Your task to perform on an android device: Open internet settings Image 0: 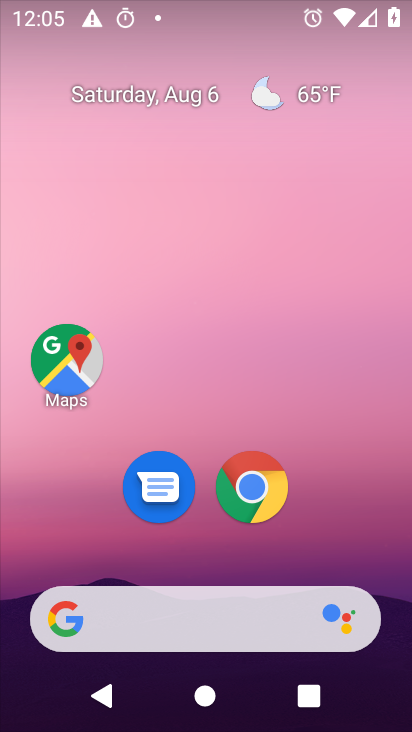
Step 0: drag from (206, 485) to (291, 7)
Your task to perform on an android device: Open internet settings Image 1: 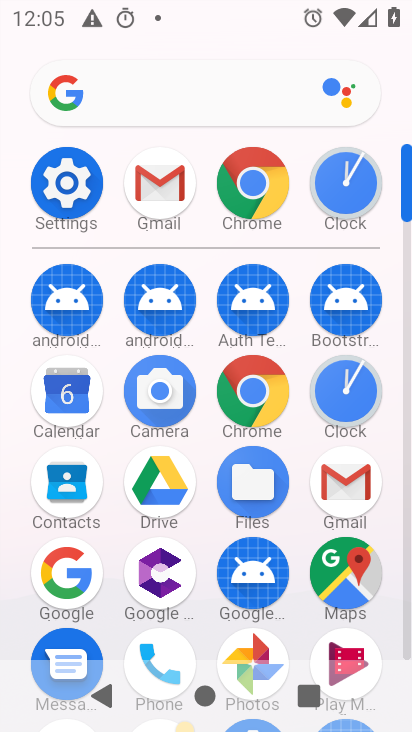
Step 1: click (76, 185)
Your task to perform on an android device: Open internet settings Image 2: 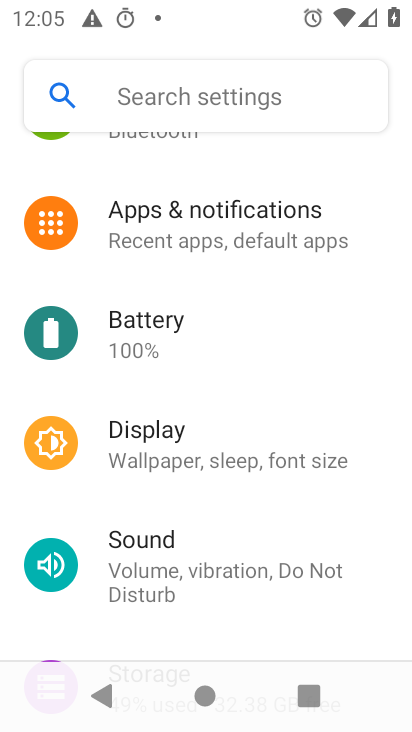
Step 2: drag from (332, 246) to (263, 721)
Your task to perform on an android device: Open internet settings Image 3: 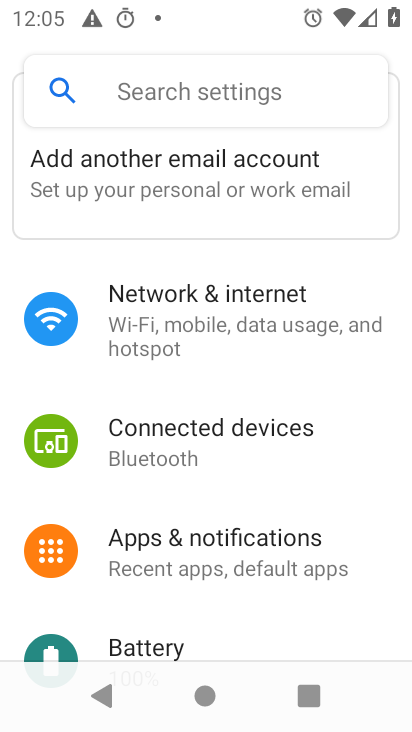
Step 3: click (211, 336)
Your task to perform on an android device: Open internet settings Image 4: 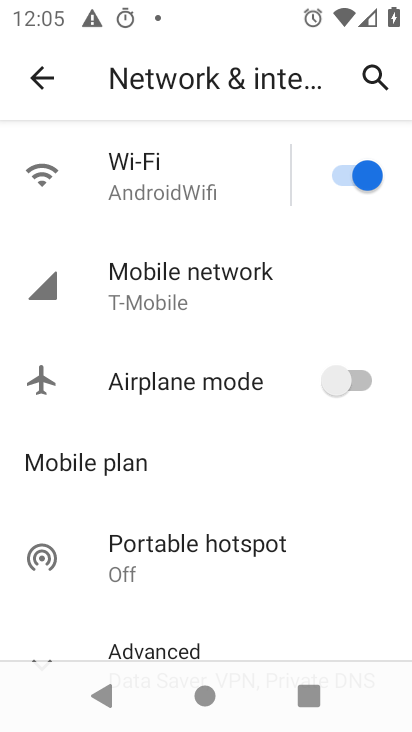
Step 4: click (211, 336)
Your task to perform on an android device: Open internet settings Image 5: 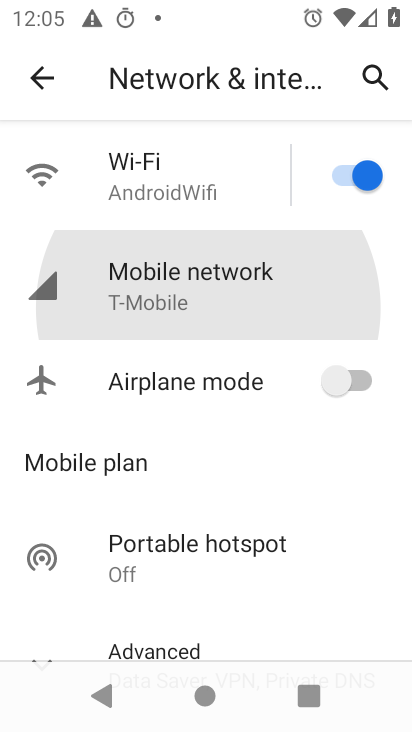
Step 5: click (211, 336)
Your task to perform on an android device: Open internet settings Image 6: 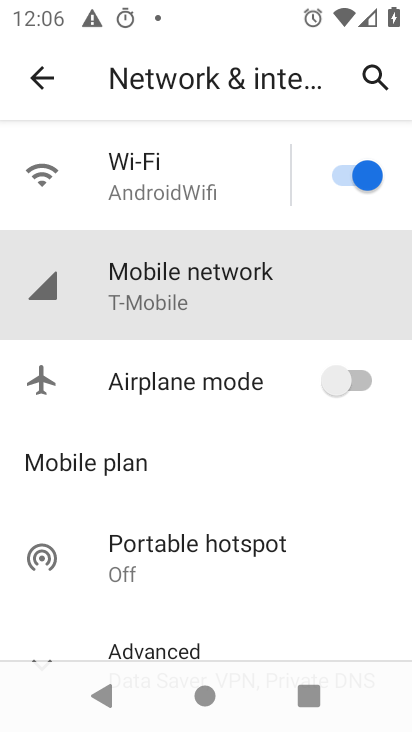
Step 6: click (211, 336)
Your task to perform on an android device: Open internet settings Image 7: 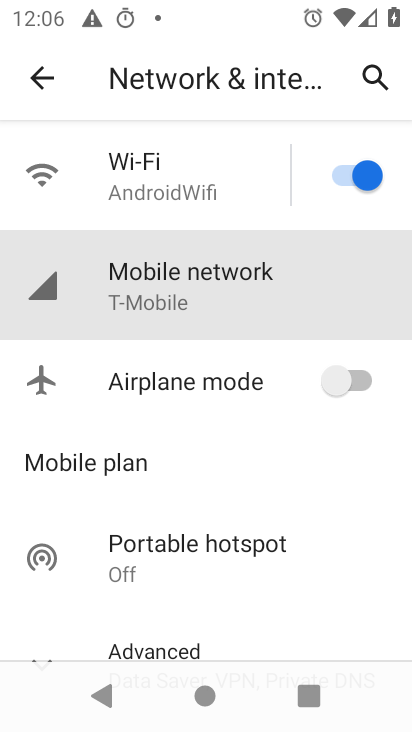
Step 7: click (211, 336)
Your task to perform on an android device: Open internet settings Image 8: 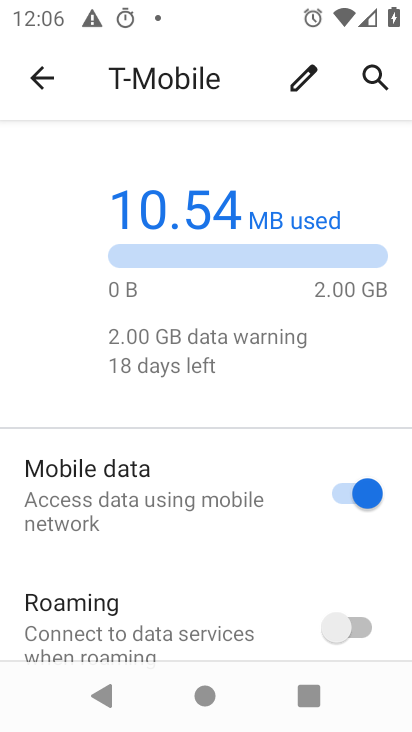
Step 8: task complete